Your task to perform on an android device: Go to Yahoo.com Image 0: 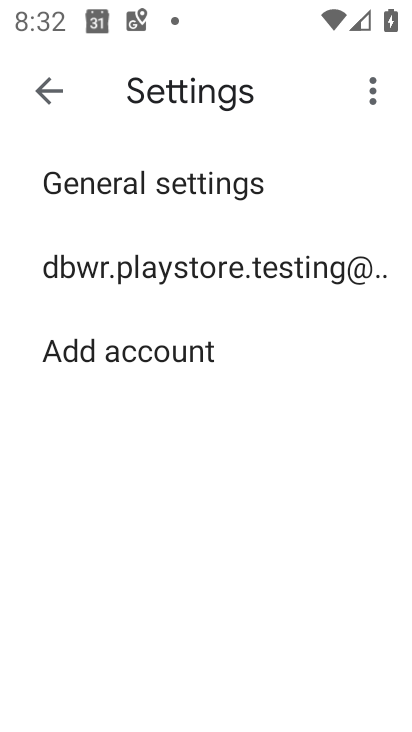
Step 0: press home button
Your task to perform on an android device: Go to Yahoo.com Image 1: 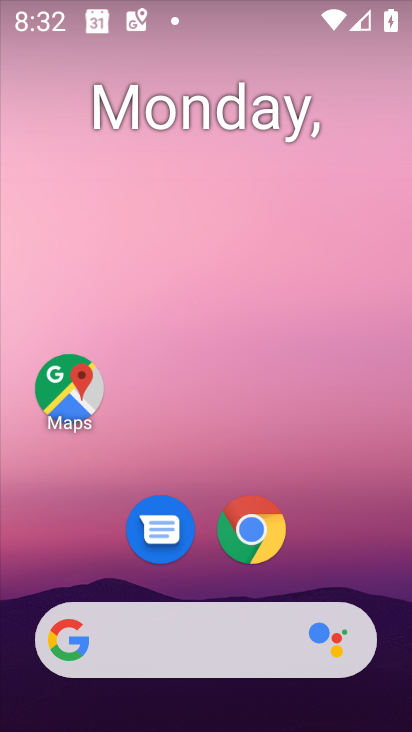
Step 1: click (246, 537)
Your task to perform on an android device: Go to Yahoo.com Image 2: 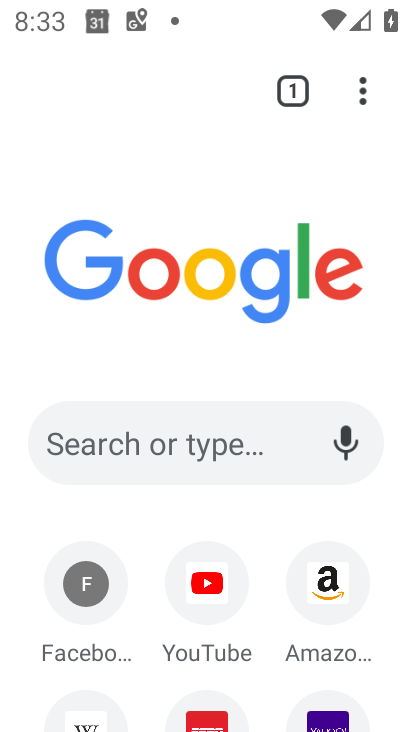
Step 2: click (319, 713)
Your task to perform on an android device: Go to Yahoo.com Image 3: 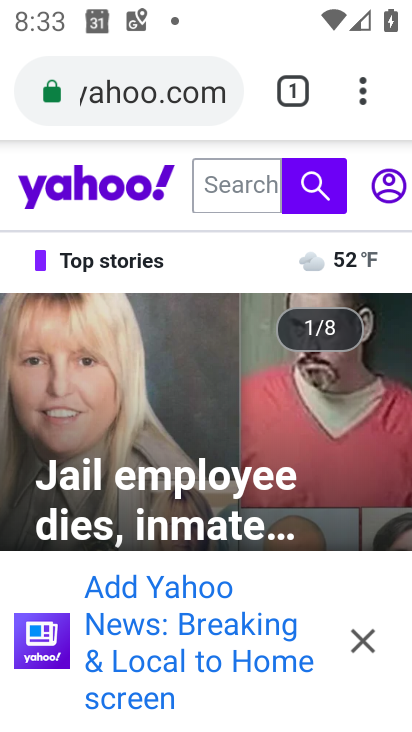
Step 3: task complete